Your task to perform on an android device: Show me popular games on the Play Store Image 0: 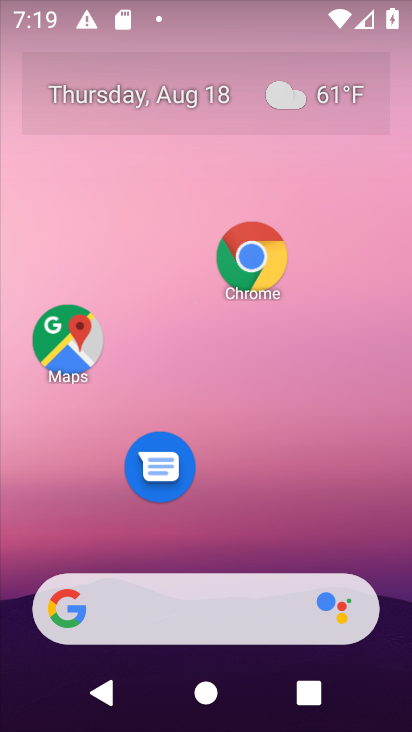
Step 0: drag from (287, 526) to (293, 235)
Your task to perform on an android device: Show me popular games on the Play Store Image 1: 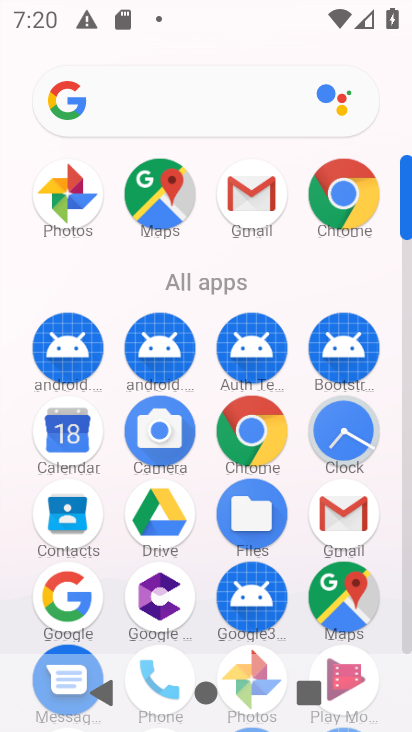
Step 1: task complete